Your task to perform on an android device: Search for Italian restaurants on Maps Image 0: 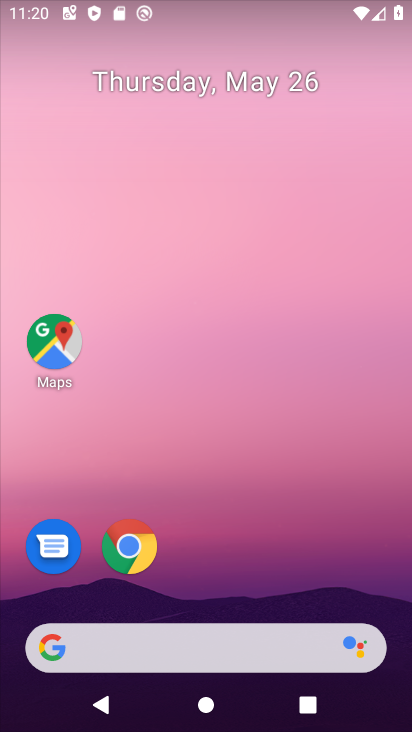
Step 0: click (62, 335)
Your task to perform on an android device: Search for Italian restaurants on Maps Image 1: 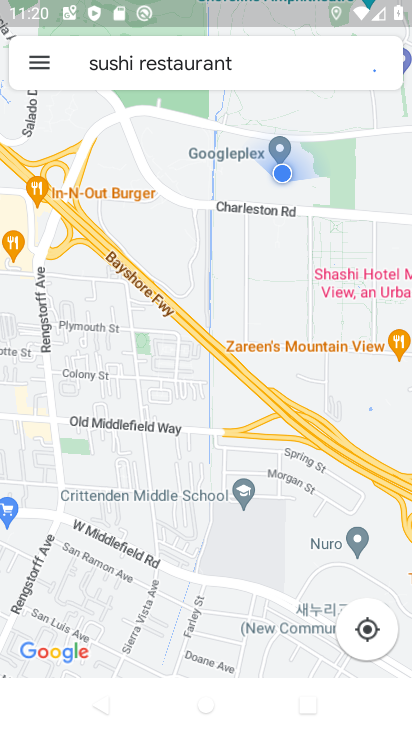
Step 1: click (286, 57)
Your task to perform on an android device: Search for Italian restaurants on Maps Image 2: 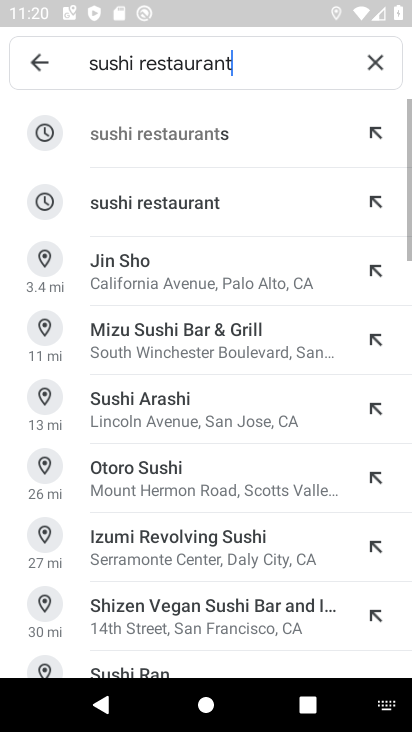
Step 2: click (373, 52)
Your task to perform on an android device: Search for Italian restaurants on Maps Image 3: 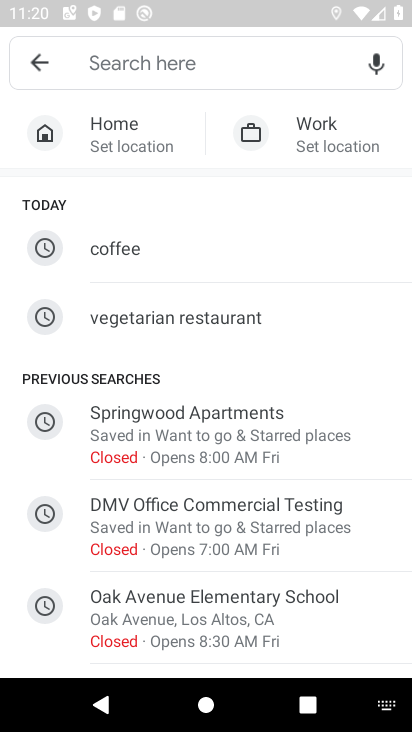
Step 3: drag from (231, 469) to (267, 399)
Your task to perform on an android device: Search for Italian restaurants on Maps Image 4: 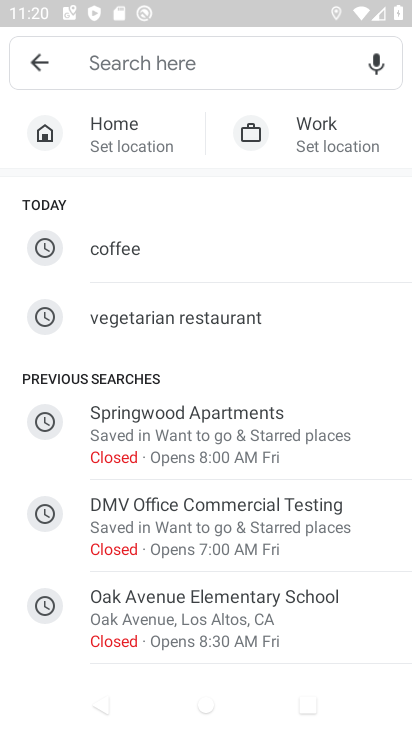
Step 4: click (161, 59)
Your task to perform on an android device: Search for Italian restaurants on Maps Image 5: 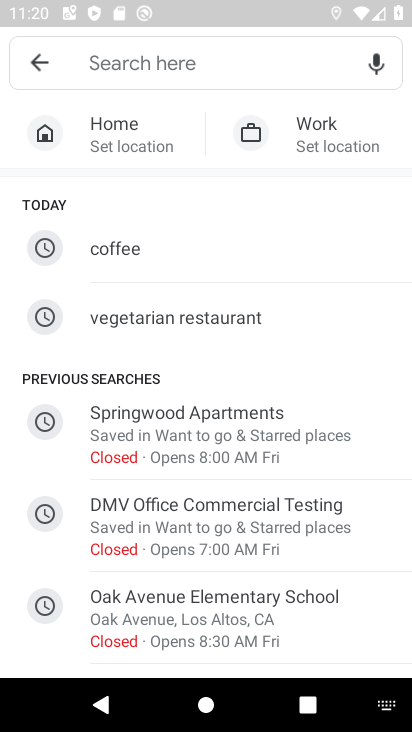
Step 5: type "italian restaurent"
Your task to perform on an android device: Search for Italian restaurants on Maps Image 6: 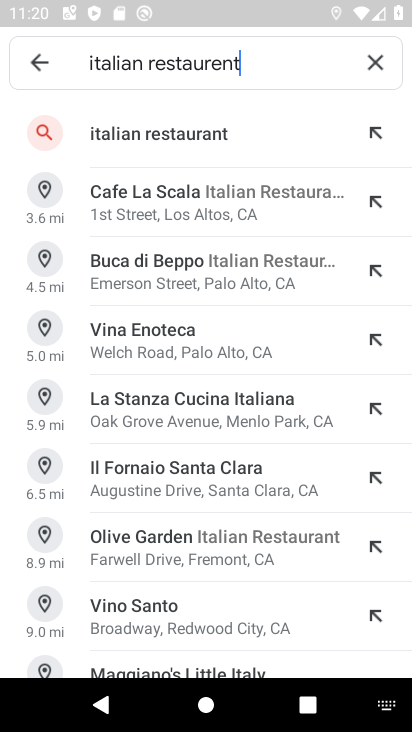
Step 6: click (145, 133)
Your task to perform on an android device: Search for Italian restaurants on Maps Image 7: 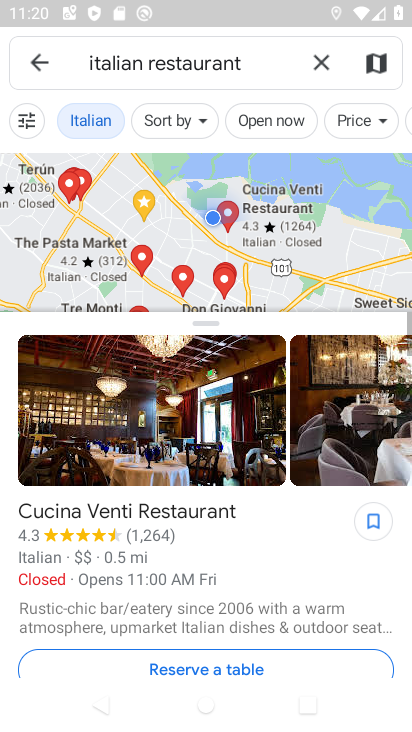
Step 7: task complete